Your task to perform on an android device: toggle javascript in the chrome app Image 0: 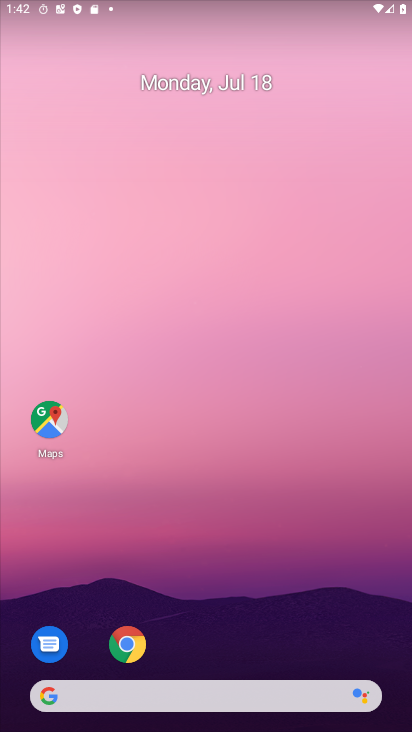
Step 0: click (118, 639)
Your task to perform on an android device: toggle javascript in the chrome app Image 1: 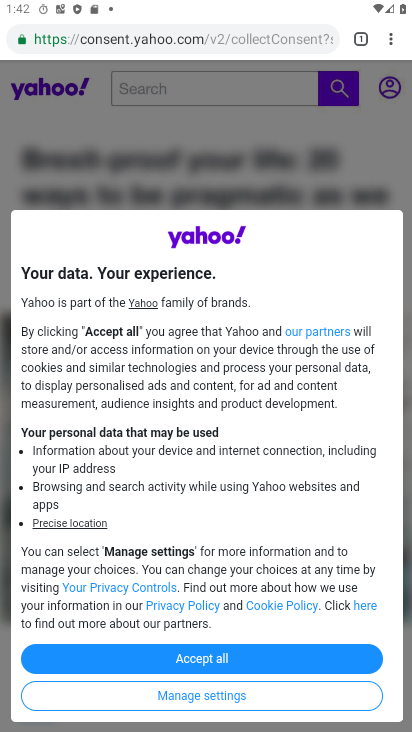
Step 1: click (396, 38)
Your task to perform on an android device: toggle javascript in the chrome app Image 2: 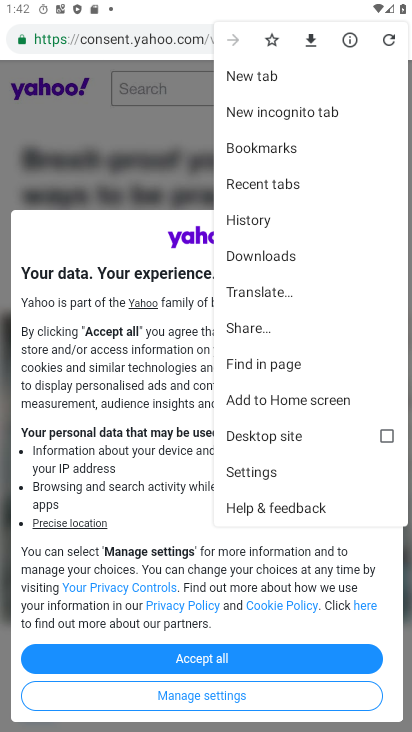
Step 2: click (236, 469)
Your task to perform on an android device: toggle javascript in the chrome app Image 3: 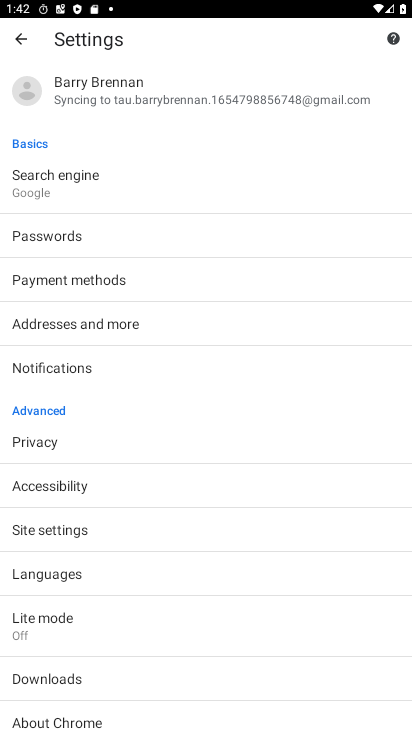
Step 3: click (116, 518)
Your task to perform on an android device: toggle javascript in the chrome app Image 4: 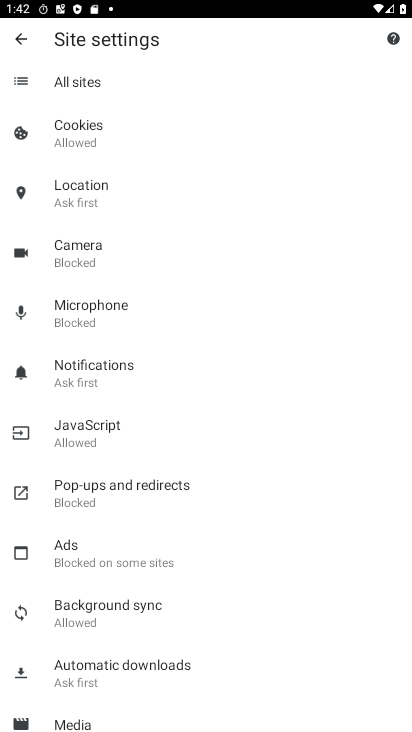
Step 4: click (98, 423)
Your task to perform on an android device: toggle javascript in the chrome app Image 5: 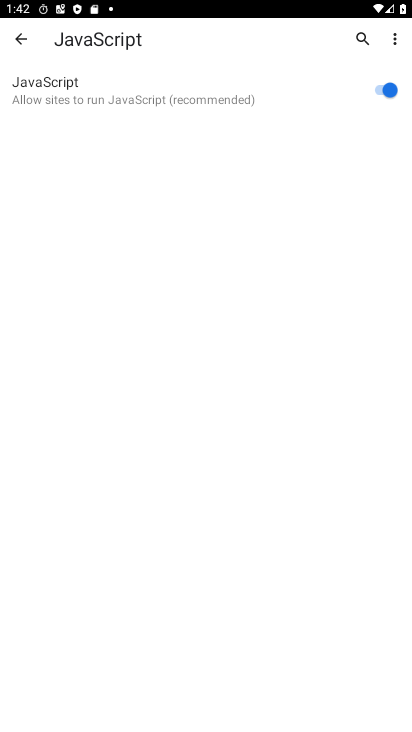
Step 5: click (380, 87)
Your task to perform on an android device: toggle javascript in the chrome app Image 6: 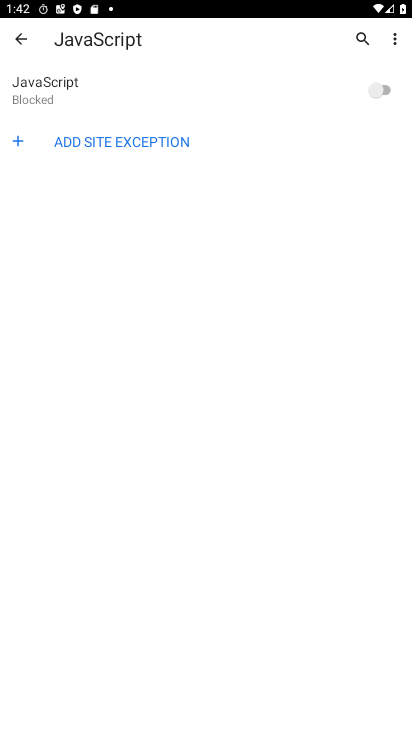
Step 6: task complete